Your task to perform on an android device: Open Chrome and go to the settings page Image 0: 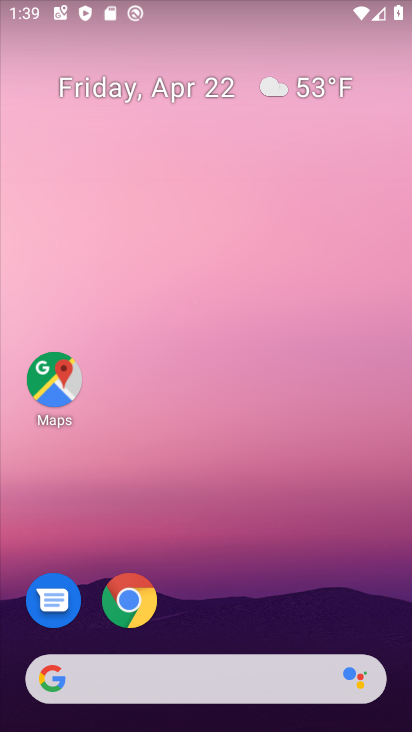
Step 0: drag from (214, 718) to (219, 108)
Your task to perform on an android device: Open Chrome and go to the settings page Image 1: 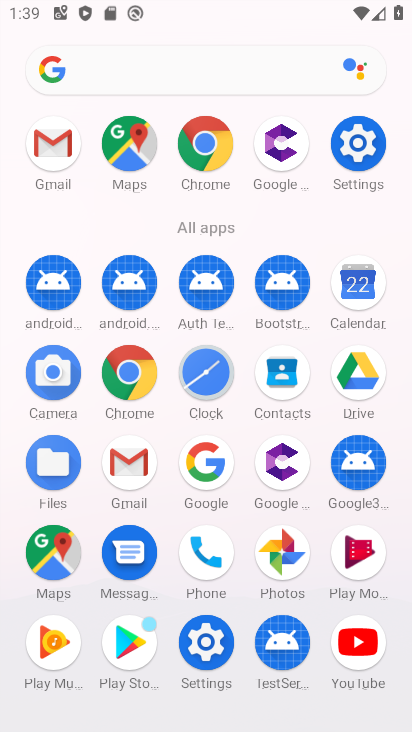
Step 1: click (128, 371)
Your task to perform on an android device: Open Chrome and go to the settings page Image 2: 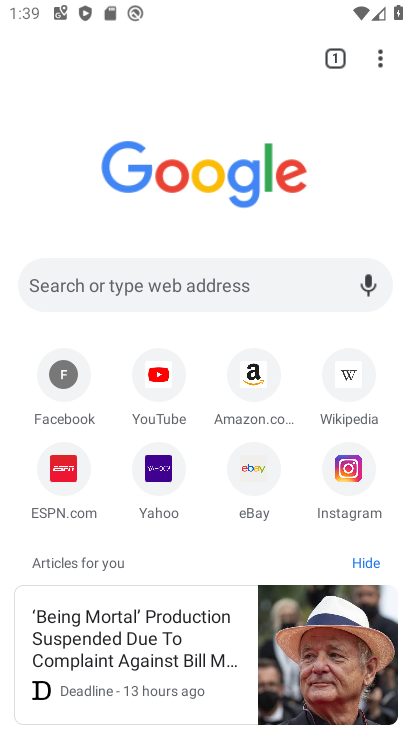
Step 2: task complete